Your task to perform on an android device: What's on my calendar tomorrow? Image 0: 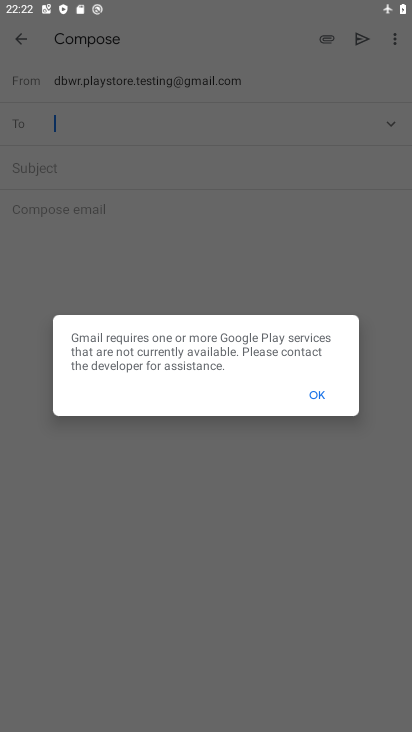
Step 0: press home button
Your task to perform on an android device: What's on my calendar tomorrow? Image 1: 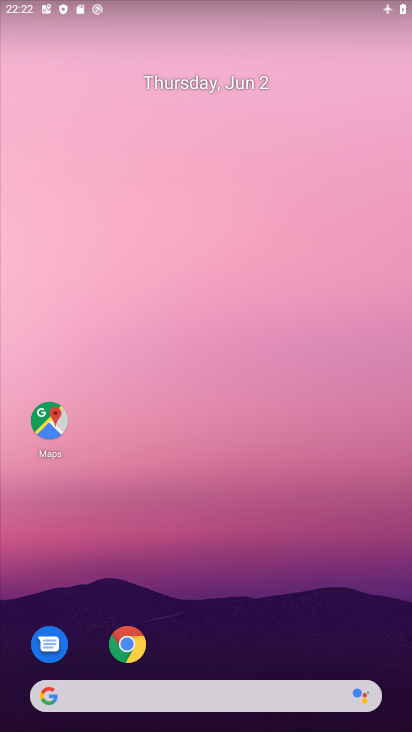
Step 1: drag from (193, 648) to (155, 242)
Your task to perform on an android device: What's on my calendar tomorrow? Image 2: 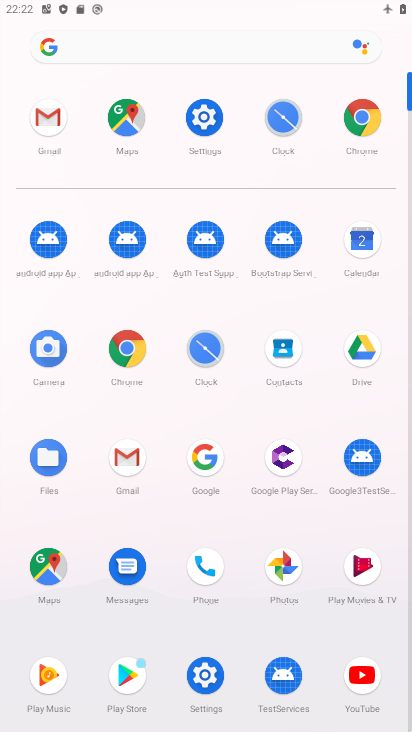
Step 2: click (366, 273)
Your task to perform on an android device: What's on my calendar tomorrow? Image 3: 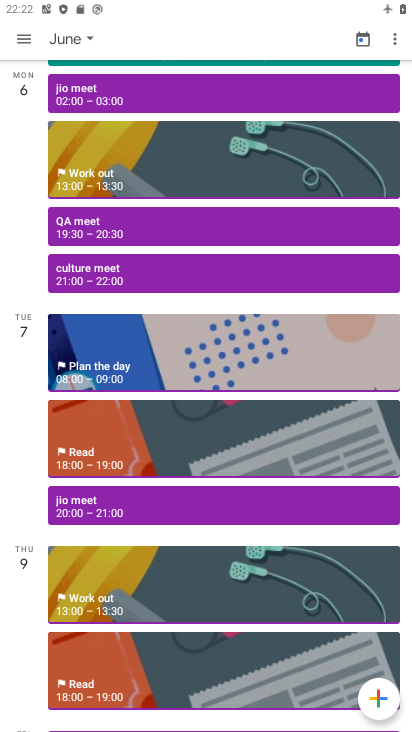
Step 3: task complete